Your task to perform on an android device: Go to Yahoo.com Image 0: 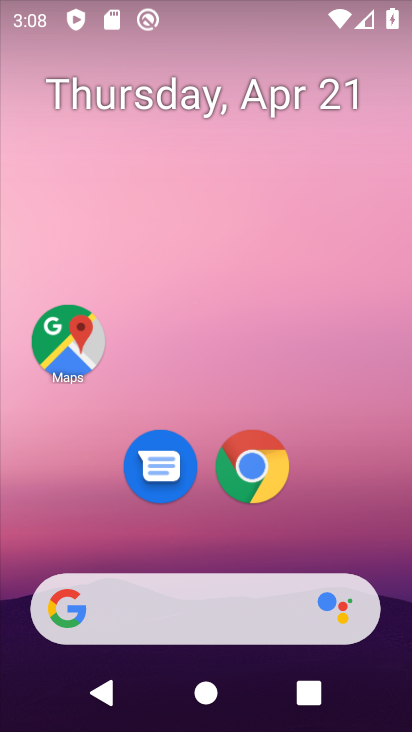
Step 0: click (254, 444)
Your task to perform on an android device: Go to Yahoo.com Image 1: 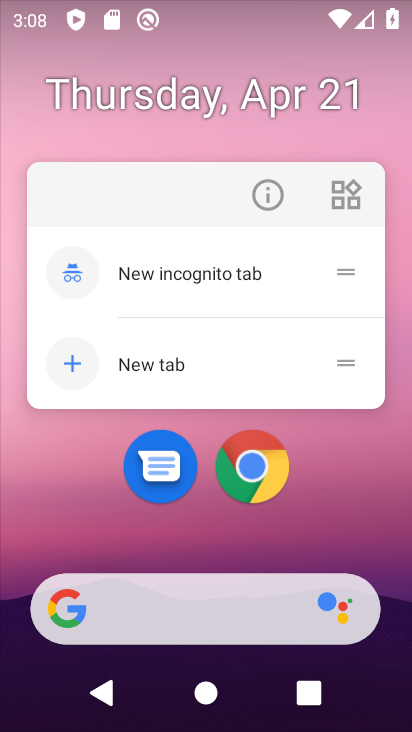
Step 1: click (274, 477)
Your task to perform on an android device: Go to Yahoo.com Image 2: 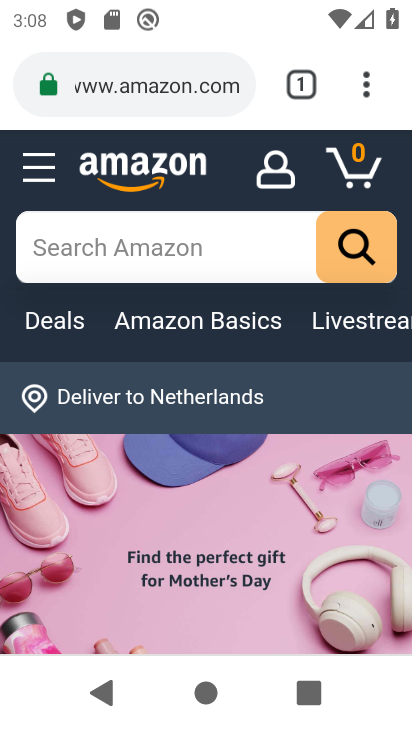
Step 2: click (302, 85)
Your task to perform on an android device: Go to Yahoo.com Image 3: 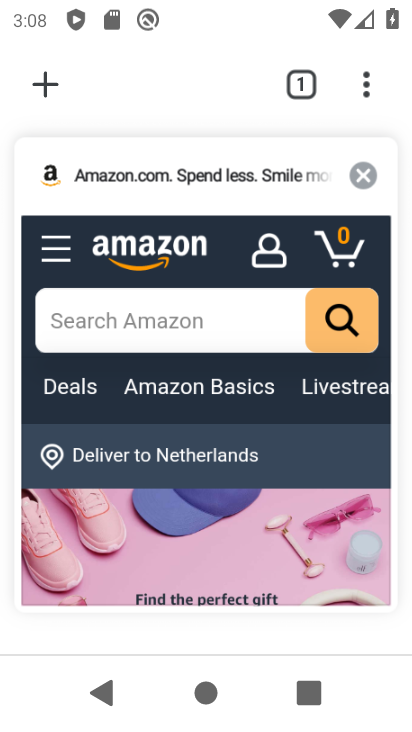
Step 3: click (52, 81)
Your task to perform on an android device: Go to Yahoo.com Image 4: 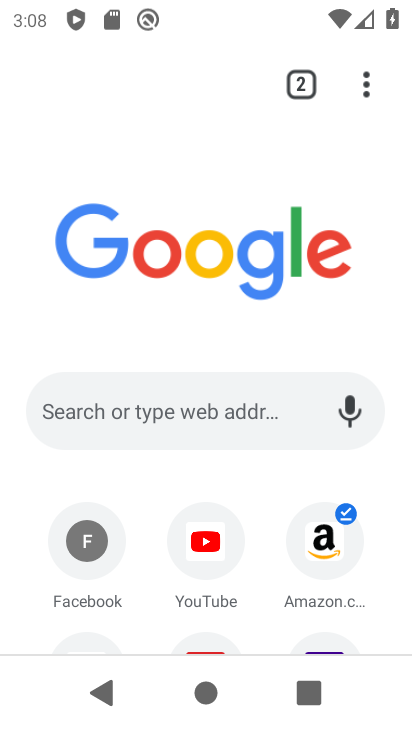
Step 4: drag from (265, 566) to (259, 168)
Your task to perform on an android device: Go to Yahoo.com Image 5: 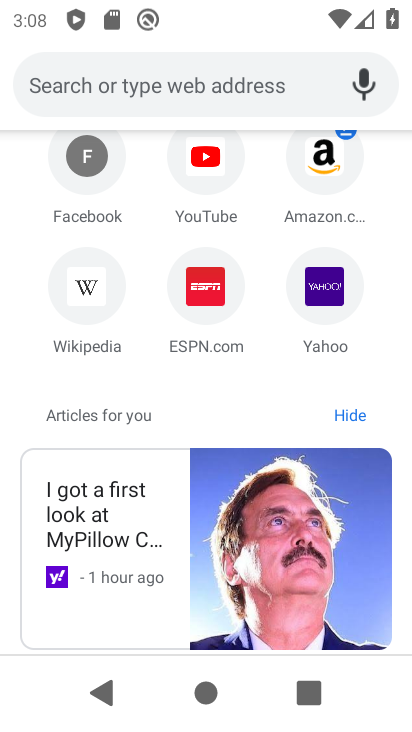
Step 5: click (321, 290)
Your task to perform on an android device: Go to Yahoo.com Image 6: 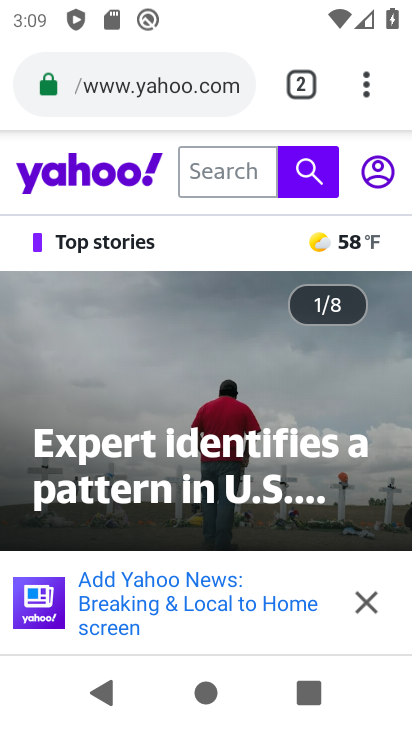
Step 6: task complete